Your task to perform on an android device: remove spam from my inbox in the gmail app Image 0: 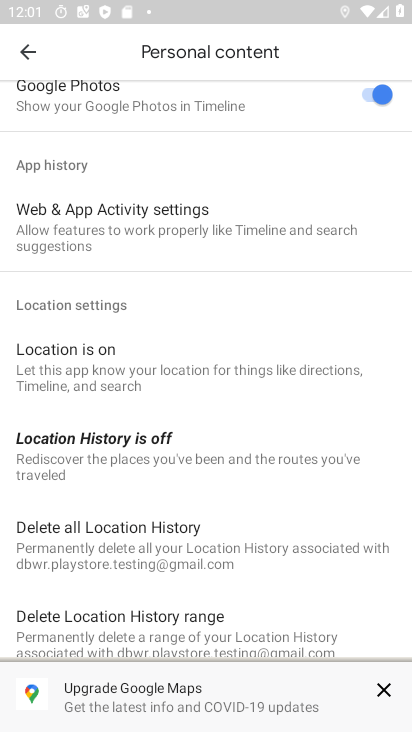
Step 0: press home button
Your task to perform on an android device: remove spam from my inbox in the gmail app Image 1: 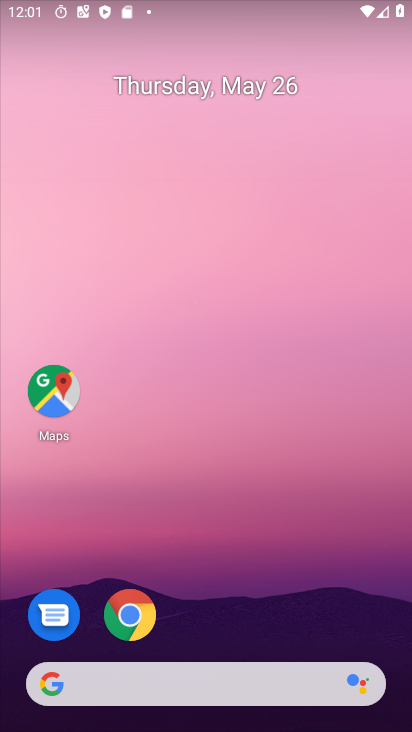
Step 1: drag from (224, 622) to (170, 279)
Your task to perform on an android device: remove spam from my inbox in the gmail app Image 2: 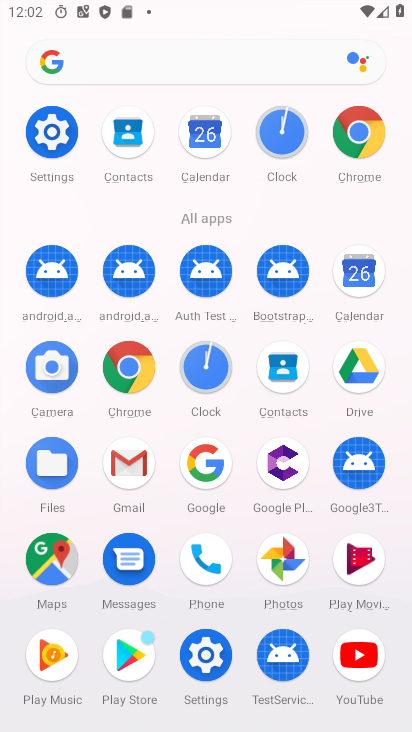
Step 2: click (136, 465)
Your task to perform on an android device: remove spam from my inbox in the gmail app Image 3: 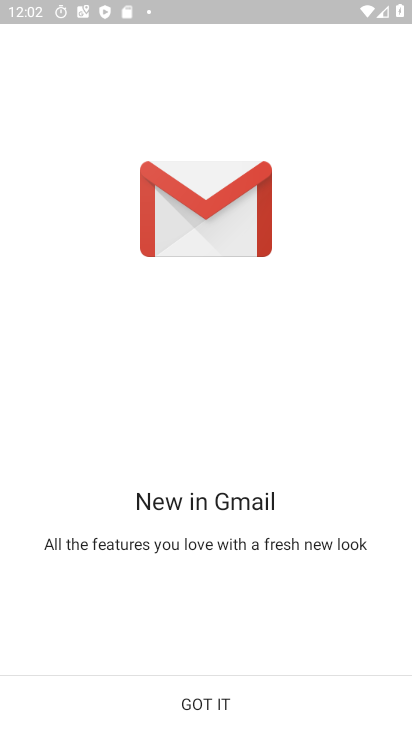
Step 3: click (210, 698)
Your task to perform on an android device: remove spam from my inbox in the gmail app Image 4: 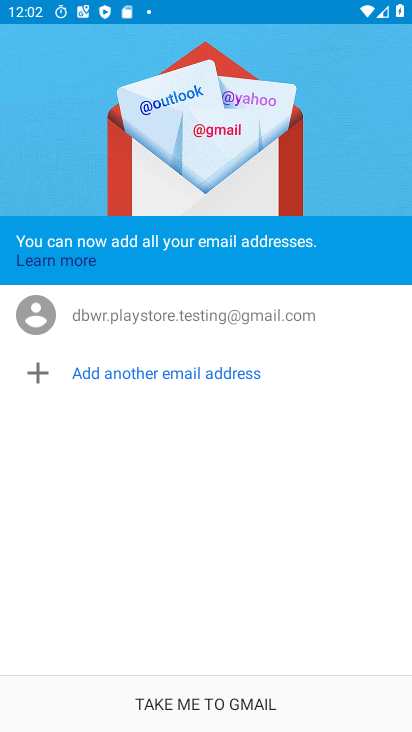
Step 4: click (210, 698)
Your task to perform on an android device: remove spam from my inbox in the gmail app Image 5: 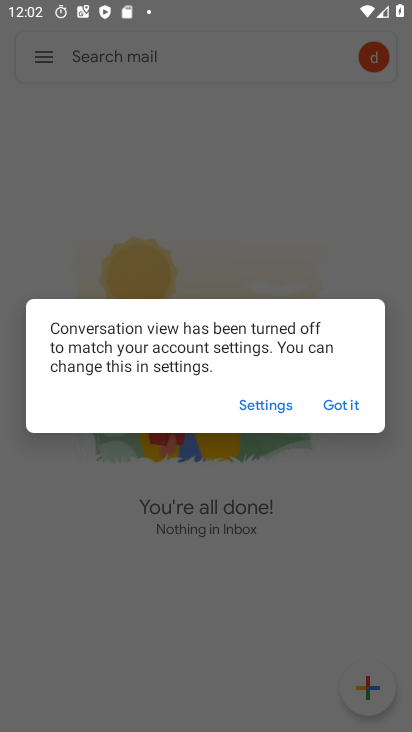
Step 5: click (345, 399)
Your task to perform on an android device: remove spam from my inbox in the gmail app Image 6: 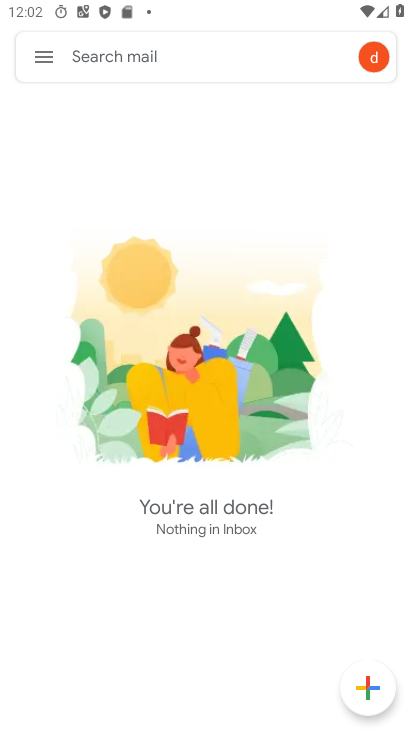
Step 6: click (47, 61)
Your task to perform on an android device: remove spam from my inbox in the gmail app Image 7: 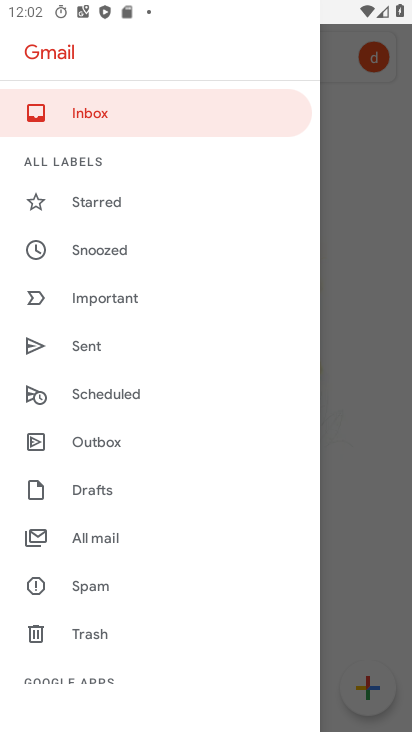
Step 7: click (127, 594)
Your task to perform on an android device: remove spam from my inbox in the gmail app Image 8: 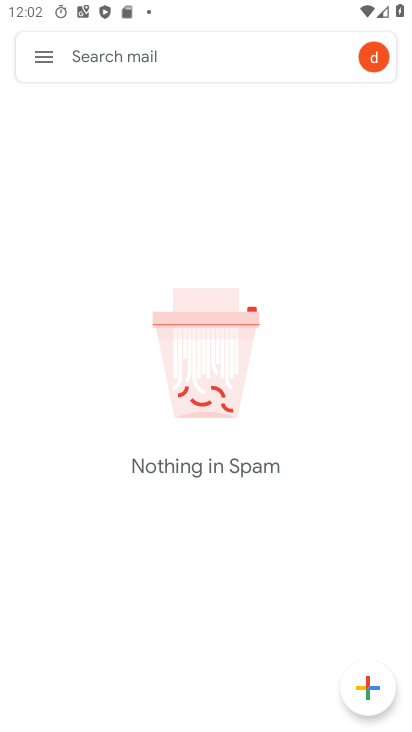
Step 8: task complete